Your task to perform on an android device: Open display settings Image 0: 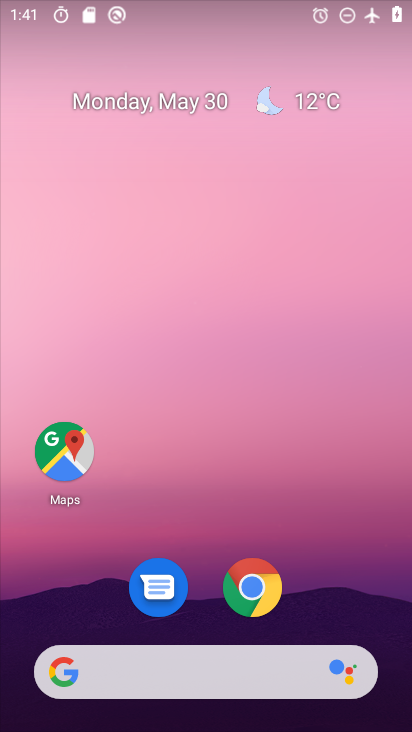
Step 0: drag from (330, 534) to (278, 9)
Your task to perform on an android device: Open display settings Image 1: 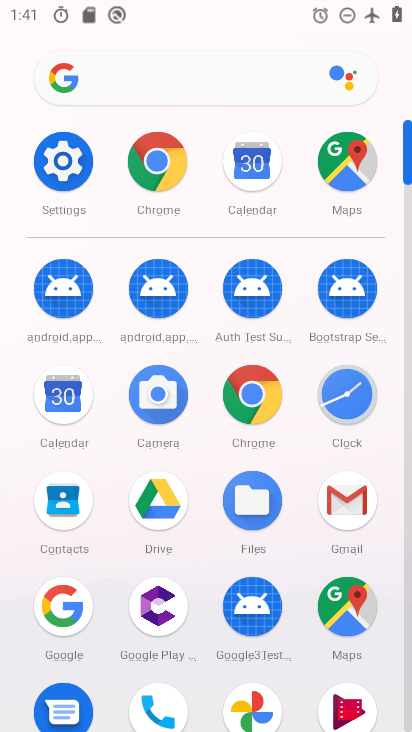
Step 1: click (48, 169)
Your task to perform on an android device: Open display settings Image 2: 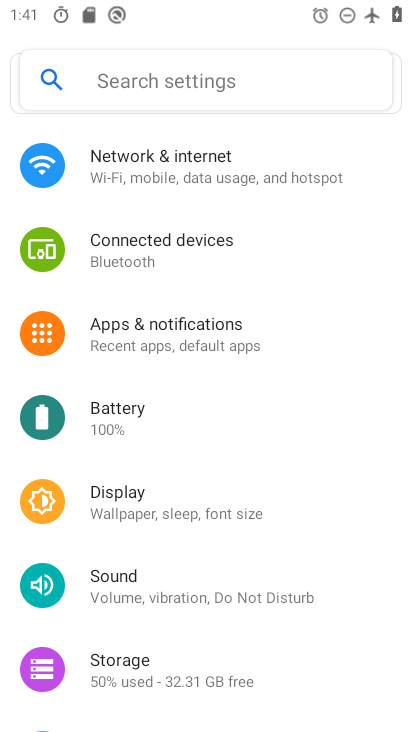
Step 2: click (157, 515)
Your task to perform on an android device: Open display settings Image 3: 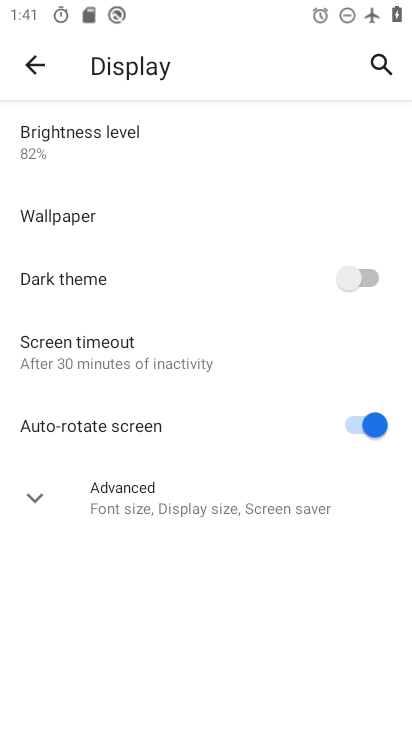
Step 3: task complete